Your task to perform on an android device: change keyboard looks Image 0: 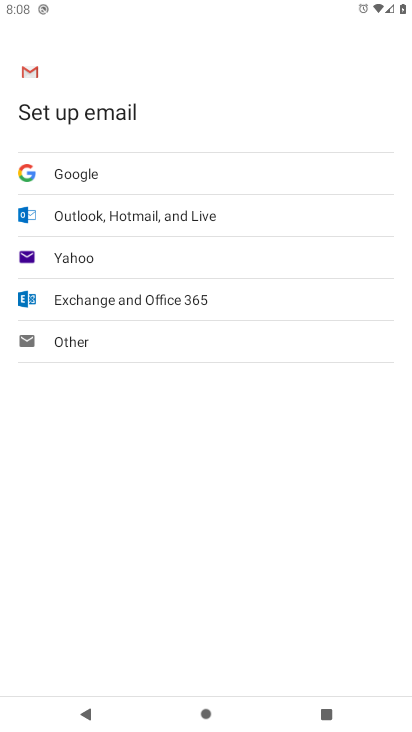
Step 0: press home button
Your task to perform on an android device: change keyboard looks Image 1: 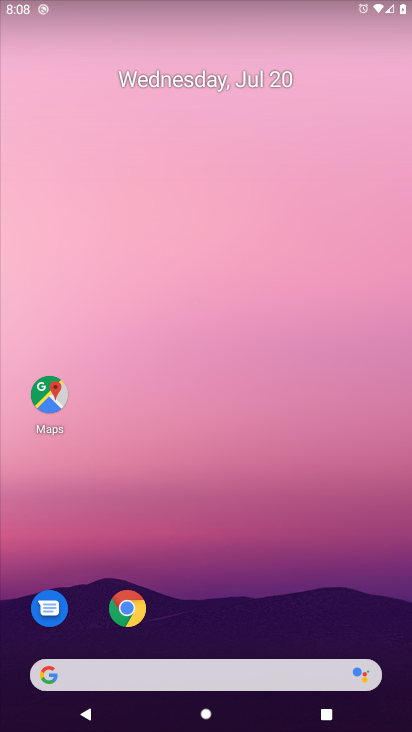
Step 1: drag from (227, 619) to (225, 238)
Your task to perform on an android device: change keyboard looks Image 2: 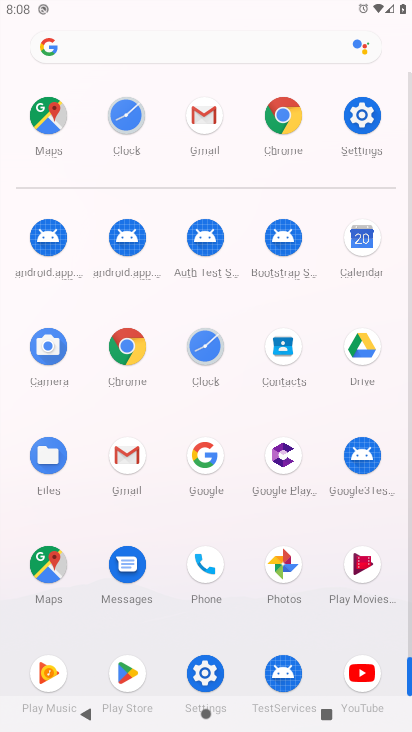
Step 2: click (204, 673)
Your task to perform on an android device: change keyboard looks Image 3: 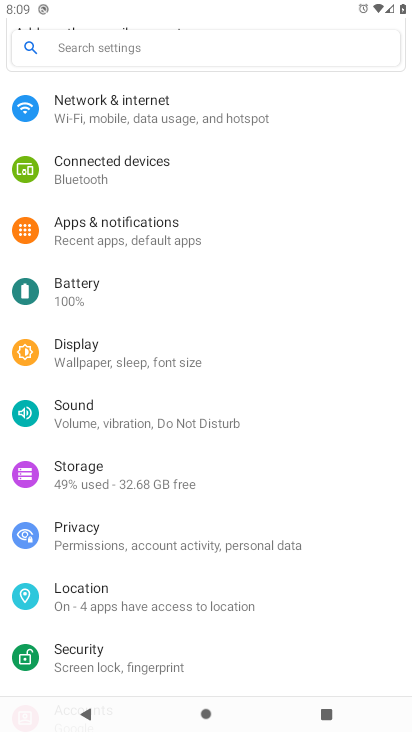
Step 3: drag from (104, 619) to (126, 350)
Your task to perform on an android device: change keyboard looks Image 4: 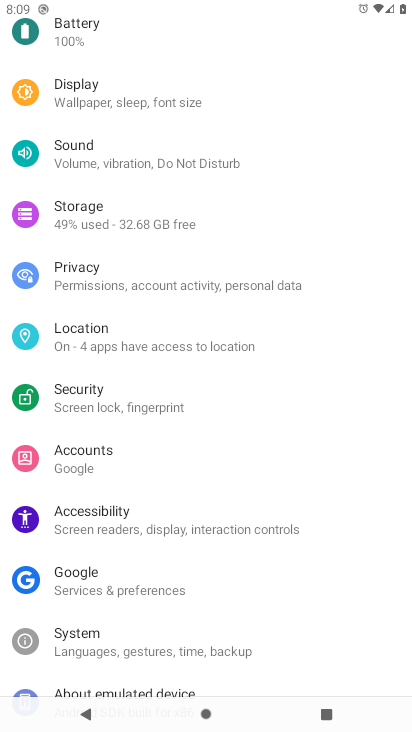
Step 4: click (107, 639)
Your task to perform on an android device: change keyboard looks Image 5: 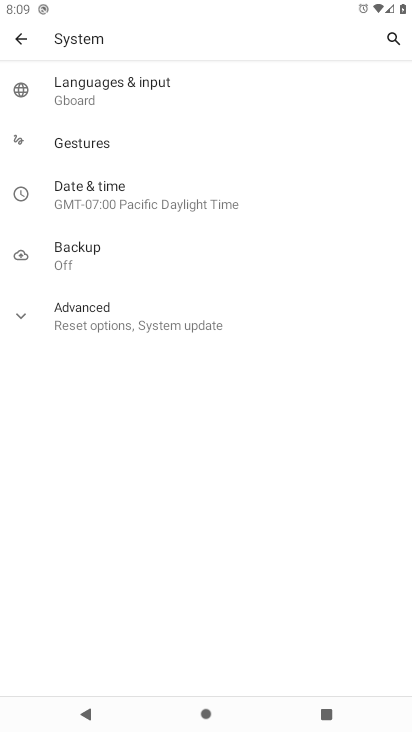
Step 5: click (95, 83)
Your task to perform on an android device: change keyboard looks Image 6: 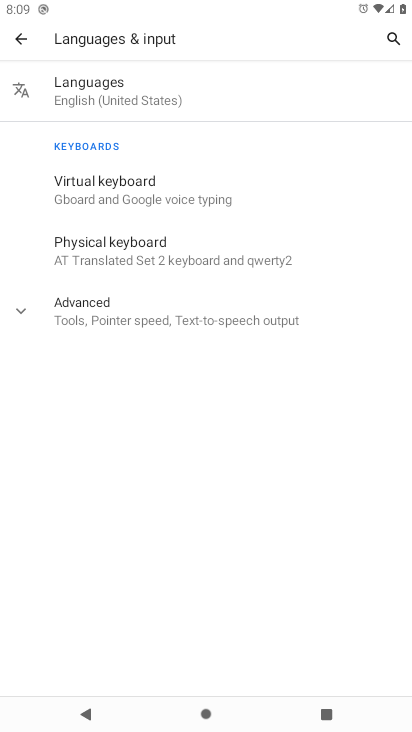
Step 6: click (134, 189)
Your task to perform on an android device: change keyboard looks Image 7: 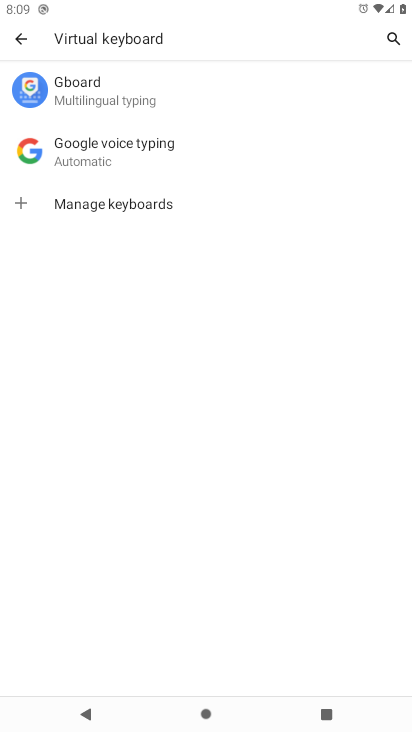
Step 7: click (130, 93)
Your task to perform on an android device: change keyboard looks Image 8: 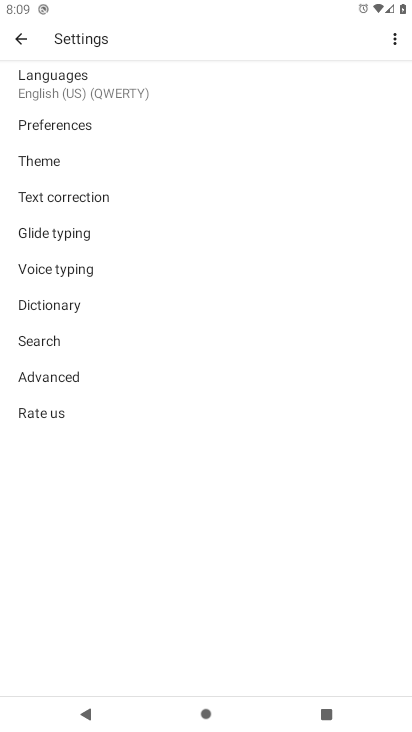
Step 8: click (57, 161)
Your task to perform on an android device: change keyboard looks Image 9: 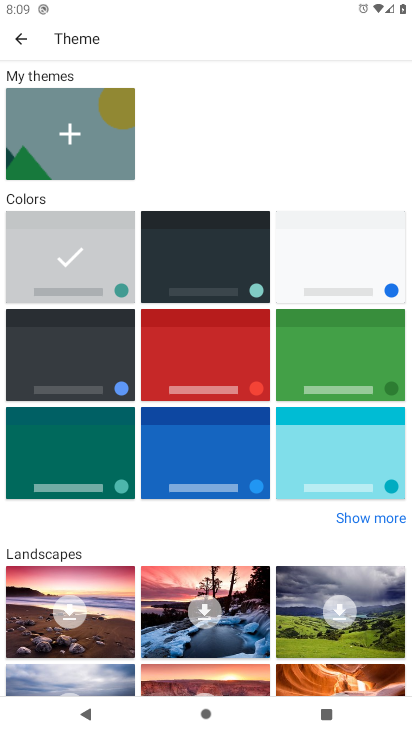
Step 9: click (213, 278)
Your task to perform on an android device: change keyboard looks Image 10: 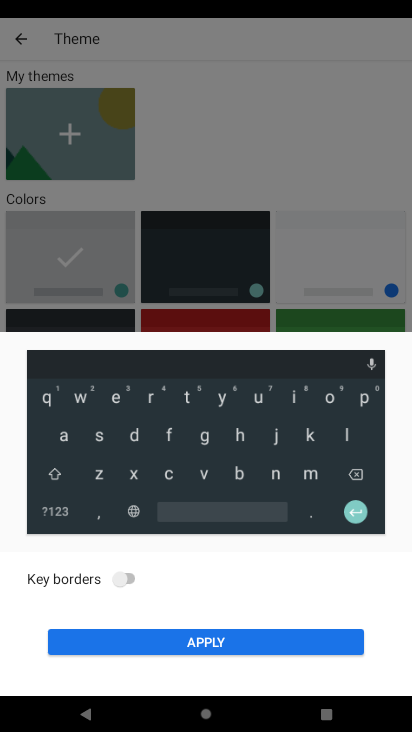
Step 10: click (240, 646)
Your task to perform on an android device: change keyboard looks Image 11: 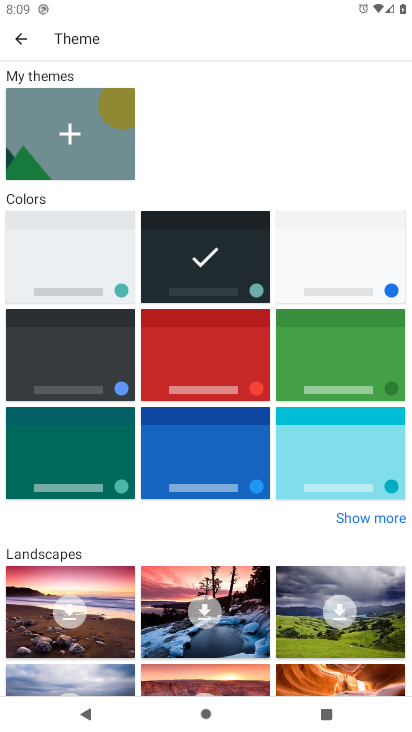
Step 11: task complete